Your task to perform on an android device: open a new tab in the chrome app Image 0: 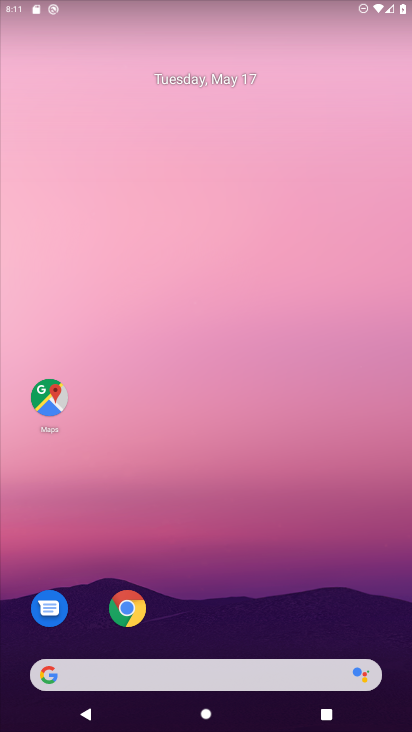
Step 0: drag from (215, 634) to (331, 1)
Your task to perform on an android device: open a new tab in the chrome app Image 1: 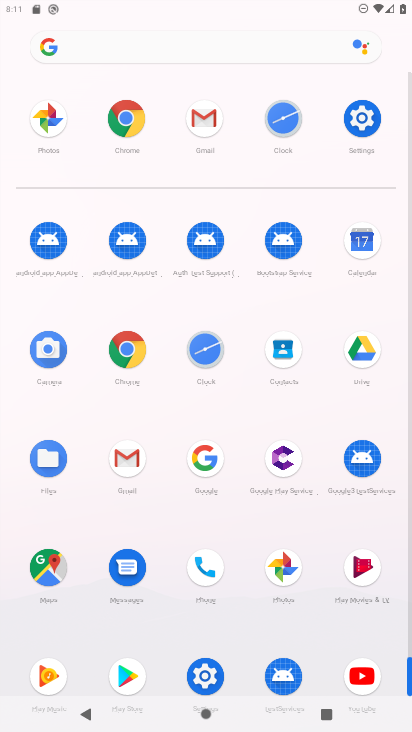
Step 1: click (131, 365)
Your task to perform on an android device: open a new tab in the chrome app Image 2: 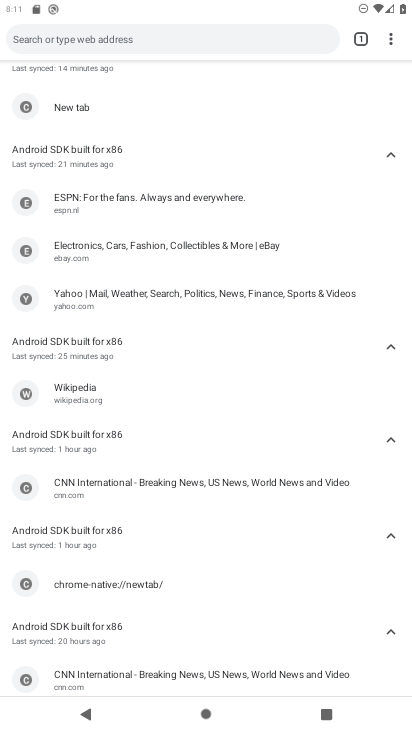
Step 2: click (391, 44)
Your task to perform on an android device: open a new tab in the chrome app Image 3: 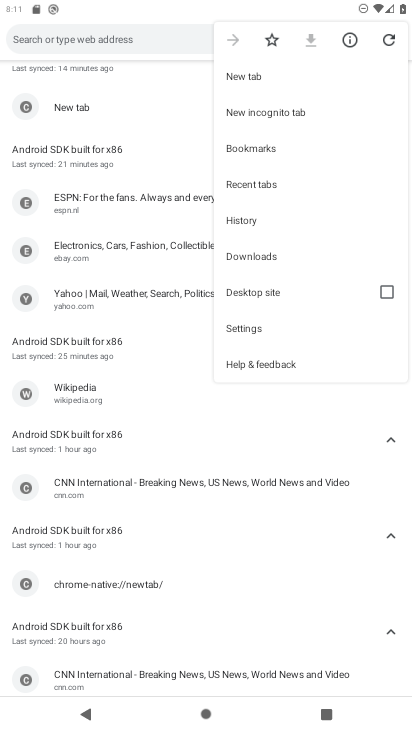
Step 3: click (258, 78)
Your task to perform on an android device: open a new tab in the chrome app Image 4: 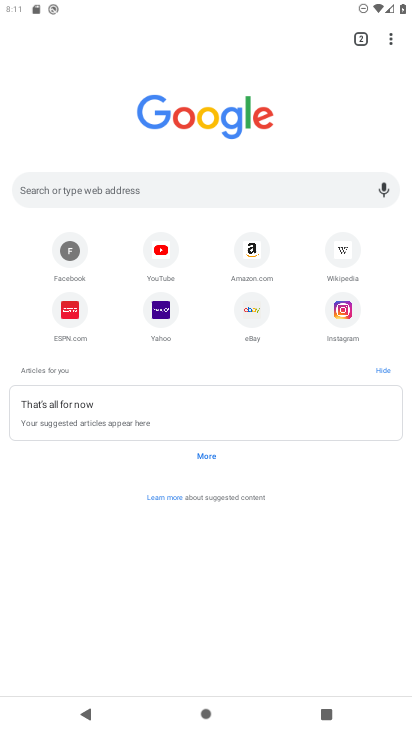
Step 4: task complete